Your task to perform on an android device: Go to Google maps Image 0: 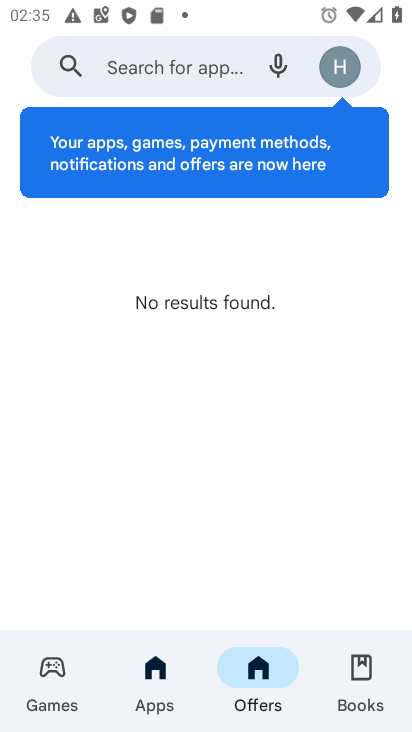
Step 0: press home button
Your task to perform on an android device: Go to Google maps Image 1: 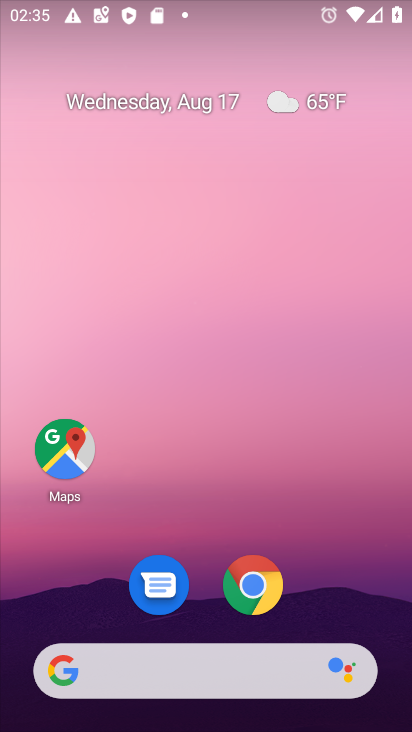
Step 1: click (64, 452)
Your task to perform on an android device: Go to Google maps Image 2: 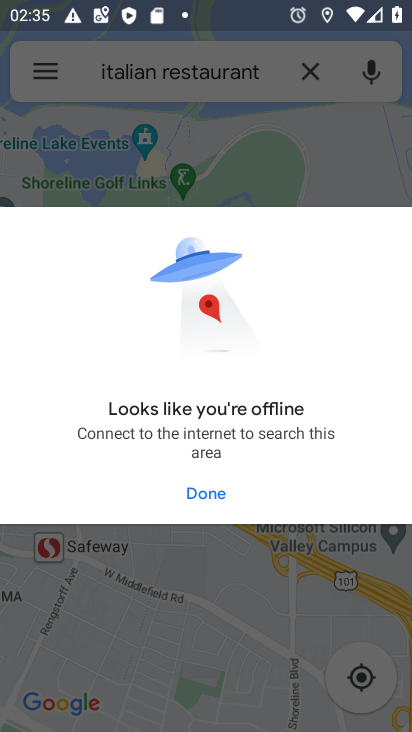
Step 2: click (199, 488)
Your task to perform on an android device: Go to Google maps Image 3: 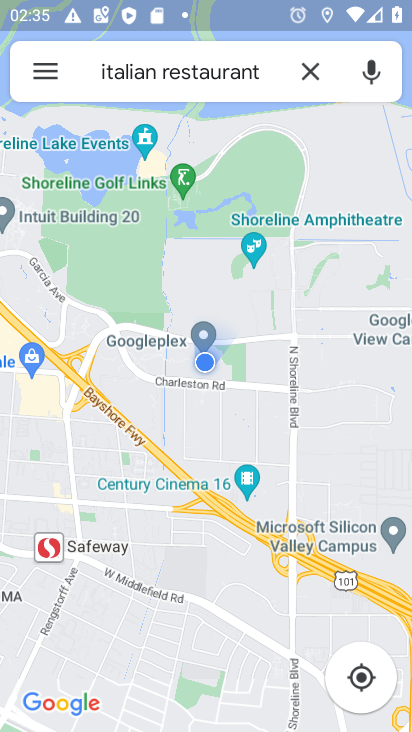
Step 3: click (309, 68)
Your task to perform on an android device: Go to Google maps Image 4: 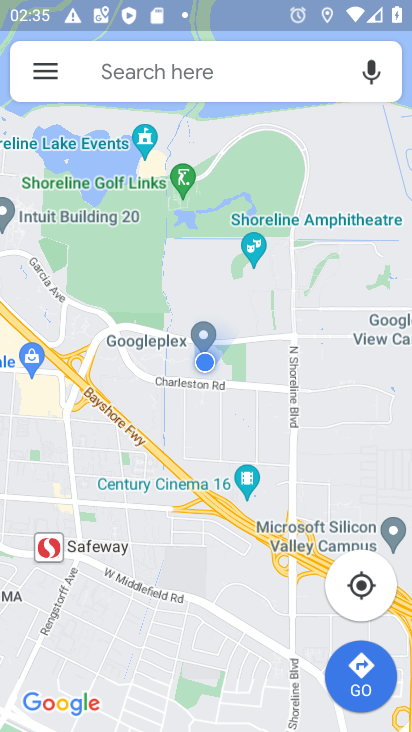
Step 4: task complete